Your task to perform on an android device: toggle priority inbox in the gmail app Image 0: 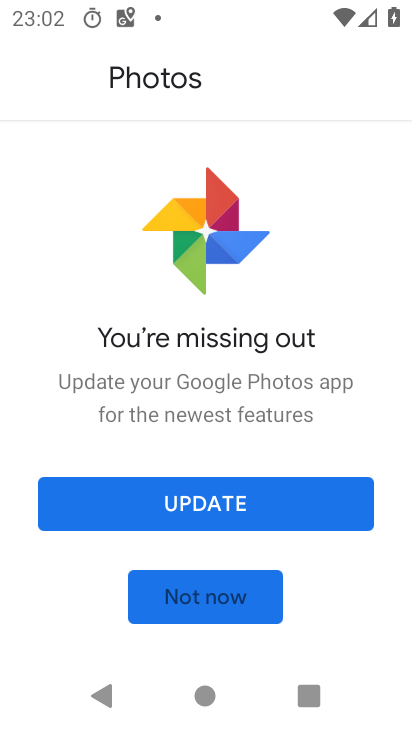
Step 0: click (233, 506)
Your task to perform on an android device: toggle priority inbox in the gmail app Image 1: 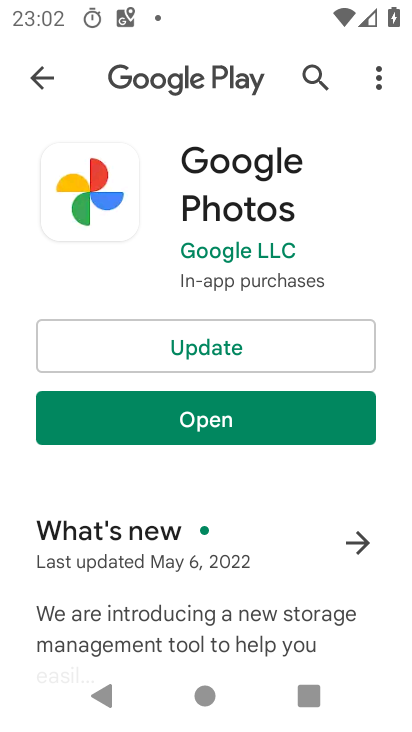
Step 1: press home button
Your task to perform on an android device: toggle priority inbox in the gmail app Image 2: 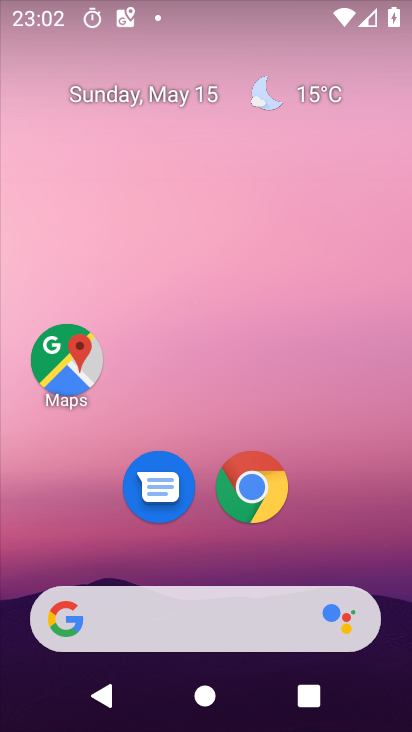
Step 2: click (348, 383)
Your task to perform on an android device: toggle priority inbox in the gmail app Image 3: 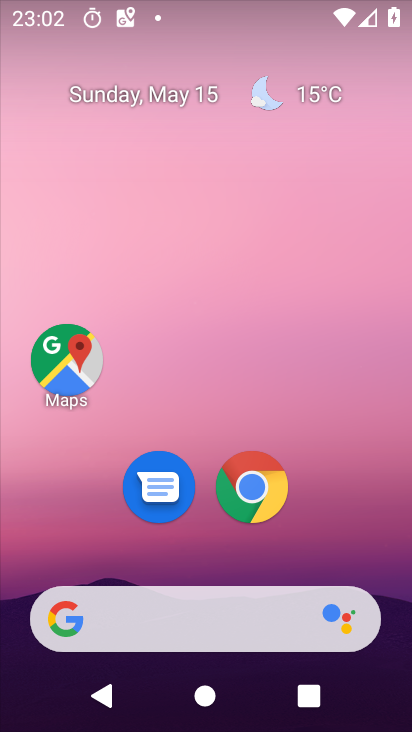
Step 3: drag from (390, 638) to (411, 265)
Your task to perform on an android device: toggle priority inbox in the gmail app Image 4: 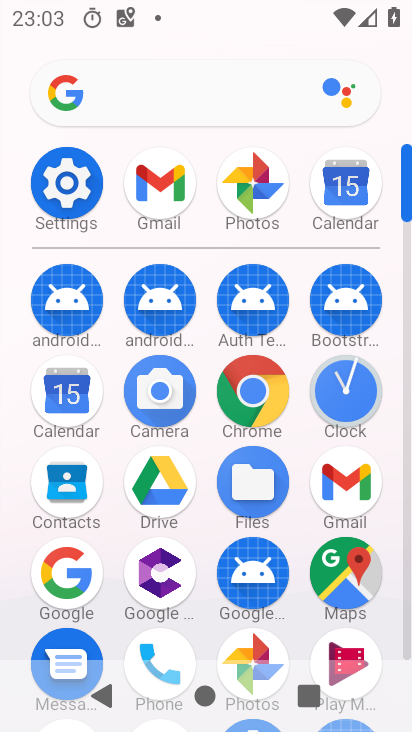
Step 4: click (334, 489)
Your task to perform on an android device: toggle priority inbox in the gmail app Image 5: 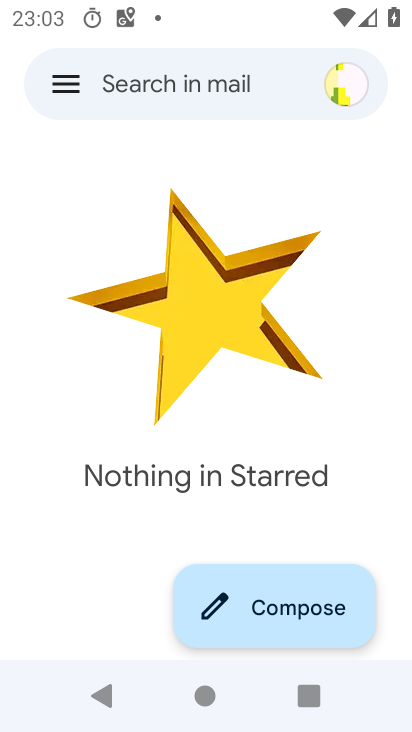
Step 5: click (54, 82)
Your task to perform on an android device: toggle priority inbox in the gmail app Image 6: 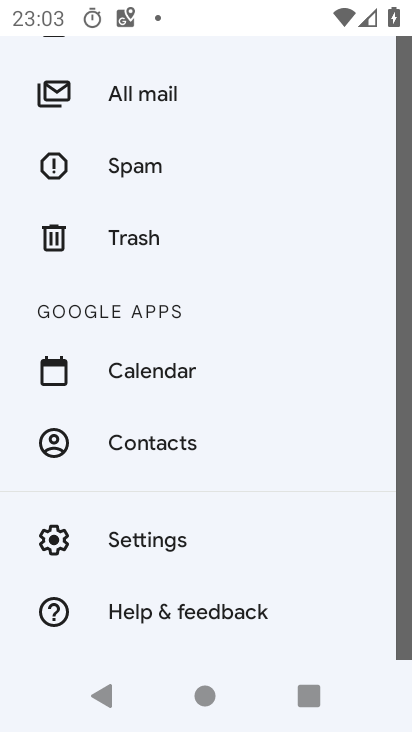
Step 6: click (160, 535)
Your task to perform on an android device: toggle priority inbox in the gmail app Image 7: 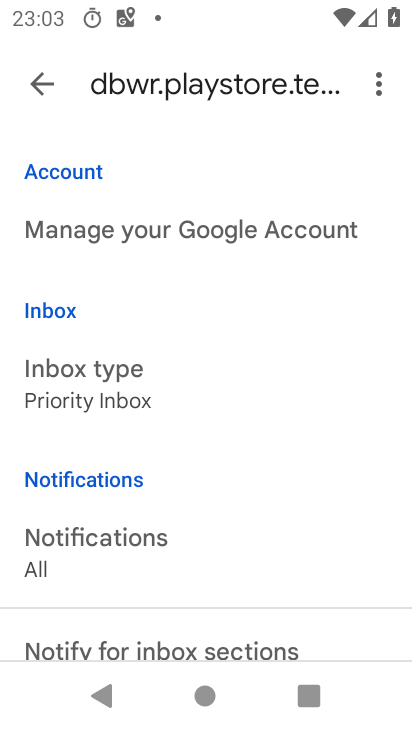
Step 7: click (70, 381)
Your task to perform on an android device: toggle priority inbox in the gmail app Image 8: 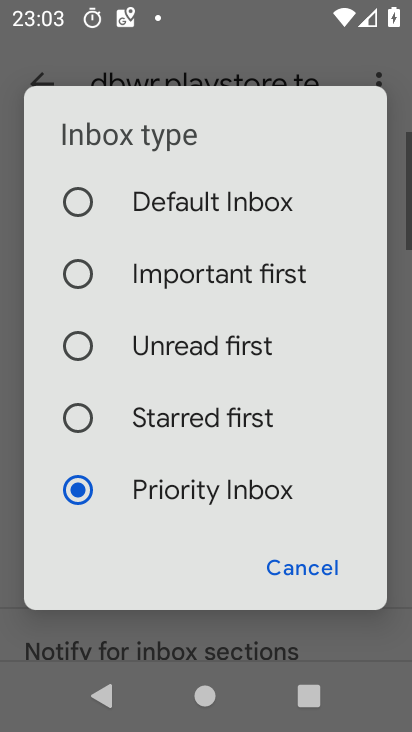
Step 8: click (78, 207)
Your task to perform on an android device: toggle priority inbox in the gmail app Image 9: 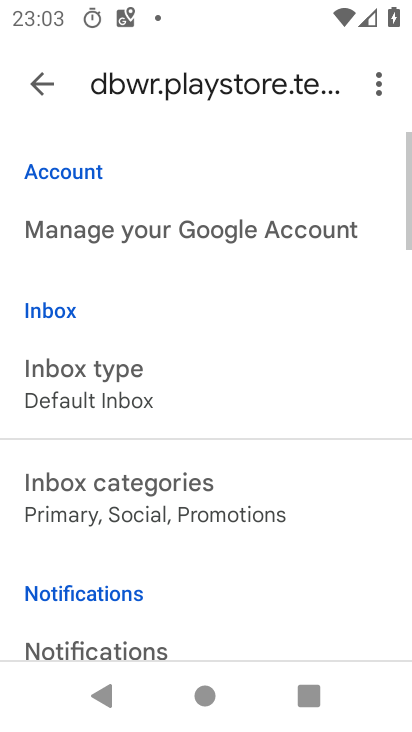
Step 9: task complete